Your task to perform on an android device: turn on wifi Image 0: 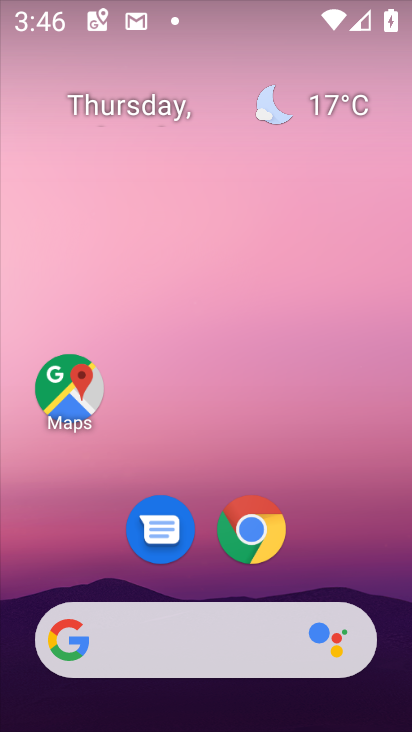
Step 0: drag from (185, 611) to (183, 50)
Your task to perform on an android device: turn on wifi Image 1: 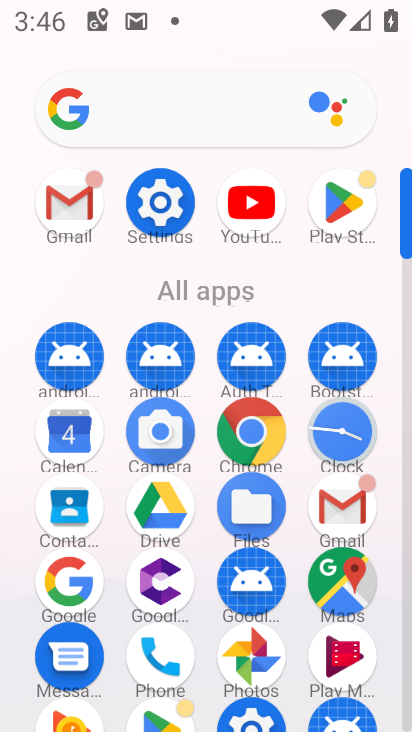
Step 1: click (154, 209)
Your task to perform on an android device: turn on wifi Image 2: 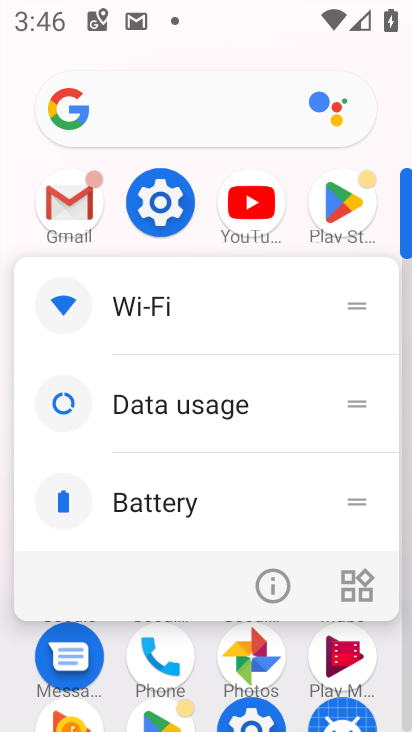
Step 2: click (154, 207)
Your task to perform on an android device: turn on wifi Image 3: 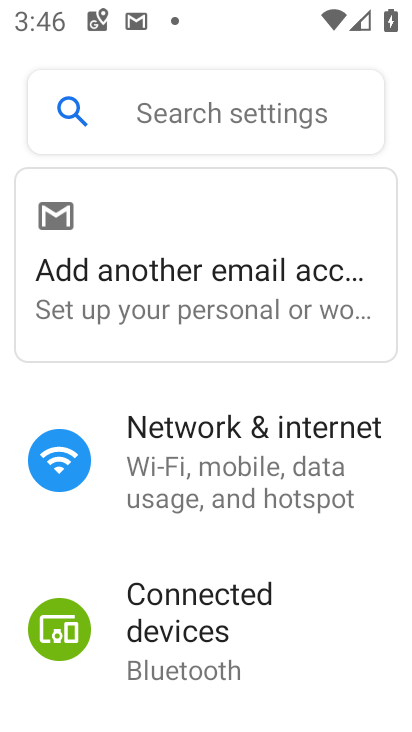
Step 3: click (182, 436)
Your task to perform on an android device: turn on wifi Image 4: 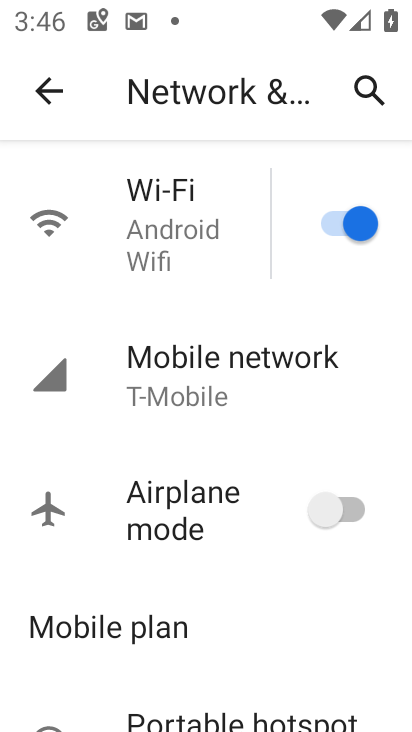
Step 4: task complete